Your task to perform on an android device: turn on wifi Image 0: 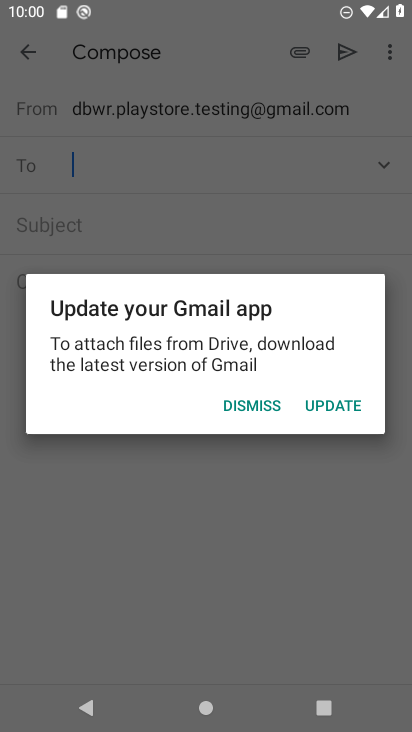
Step 0: press home button
Your task to perform on an android device: turn on wifi Image 1: 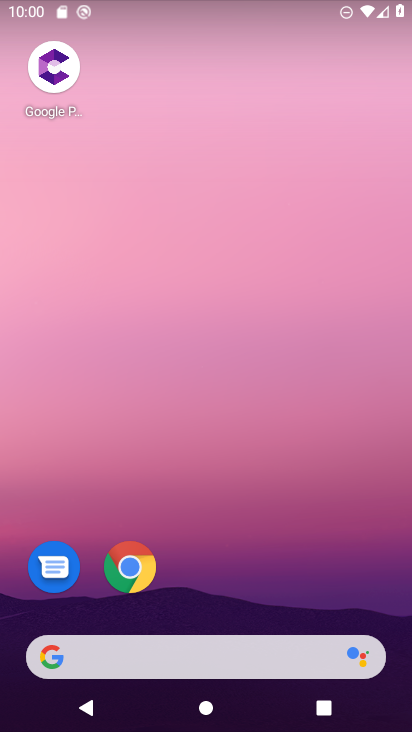
Step 1: drag from (262, 709) to (324, 37)
Your task to perform on an android device: turn on wifi Image 2: 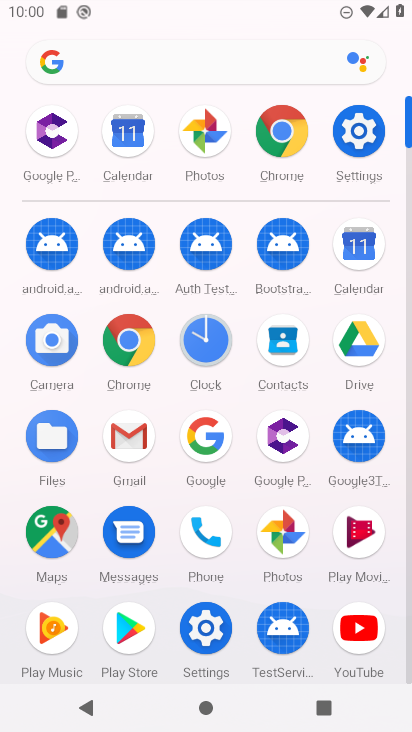
Step 2: click (354, 158)
Your task to perform on an android device: turn on wifi Image 3: 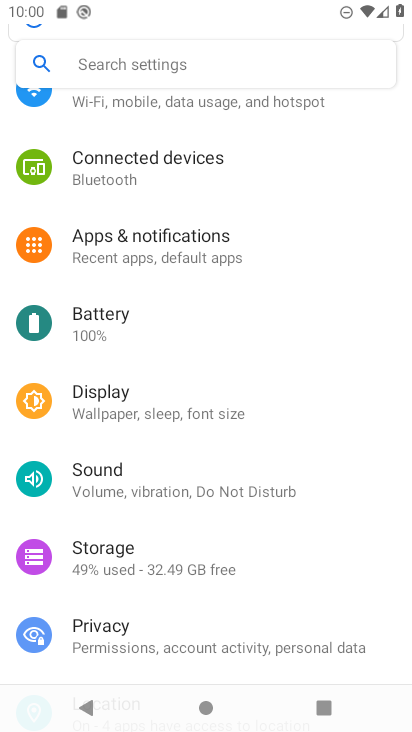
Step 3: click (250, 104)
Your task to perform on an android device: turn on wifi Image 4: 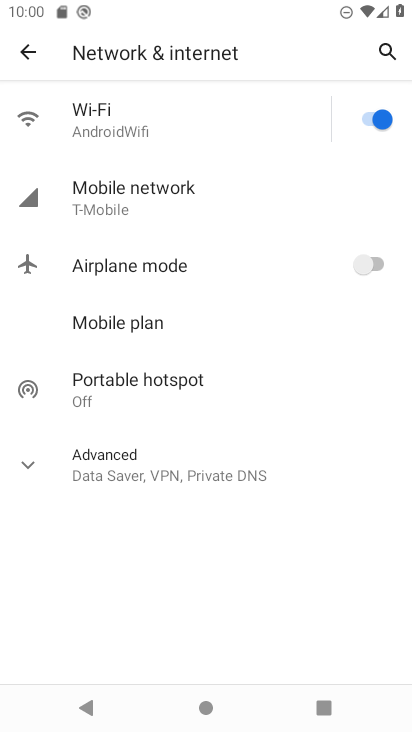
Step 4: task complete